Your task to perform on an android device: Open Amazon Image 0: 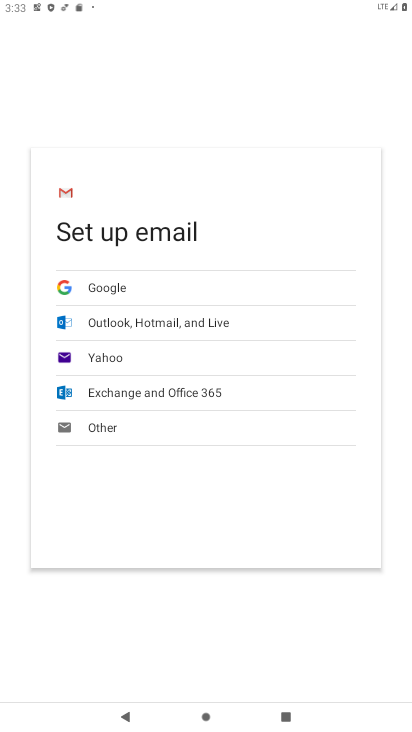
Step 0: press home button
Your task to perform on an android device: Open Amazon Image 1: 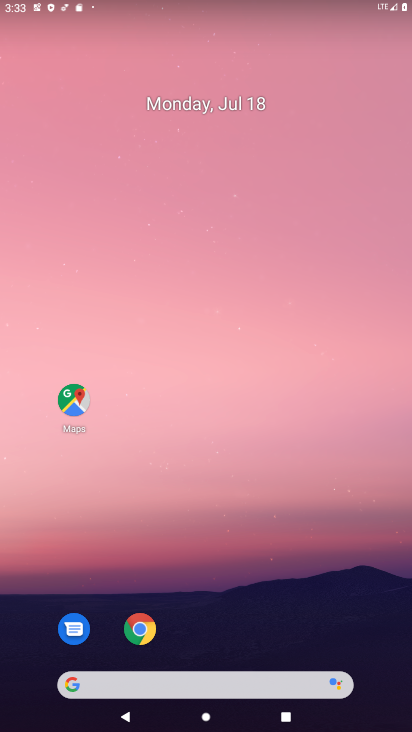
Step 1: click (143, 633)
Your task to perform on an android device: Open Amazon Image 2: 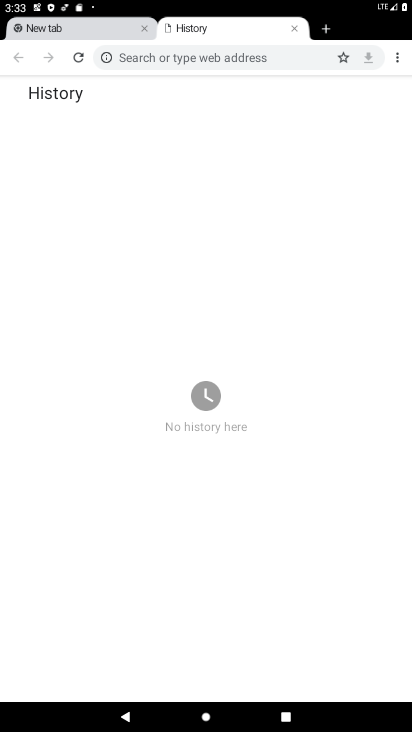
Step 2: click (296, 28)
Your task to perform on an android device: Open Amazon Image 3: 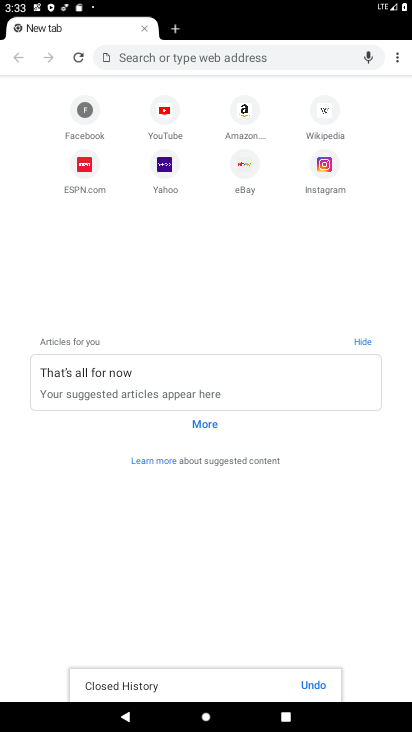
Step 3: click (248, 123)
Your task to perform on an android device: Open Amazon Image 4: 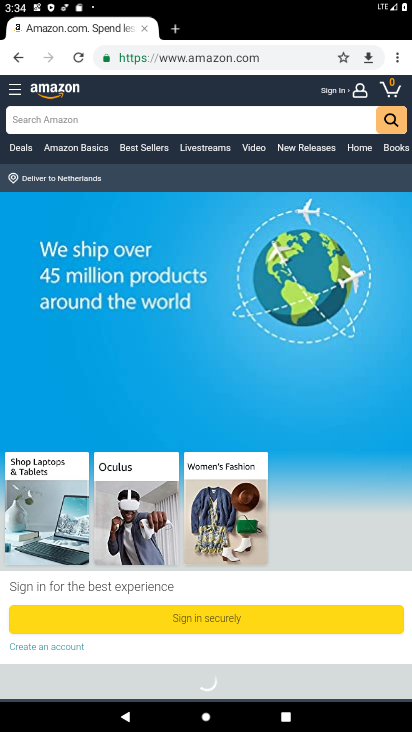
Step 4: task complete